Your task to perform on an android device: What is the news today? Image 0: 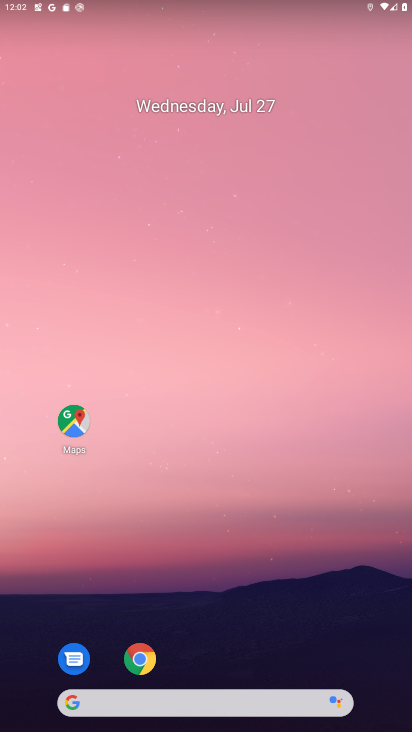
Step 0: drag from (262, 688) to (279, 28)
Your task to perform on an android device: What is the news today? Image 1: 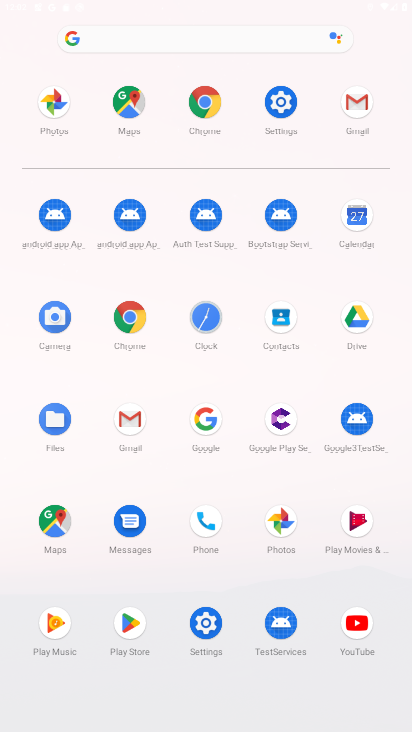
Step 1: click (133, 321)
Your task to perform on an android device: What is the news today? Image 2: 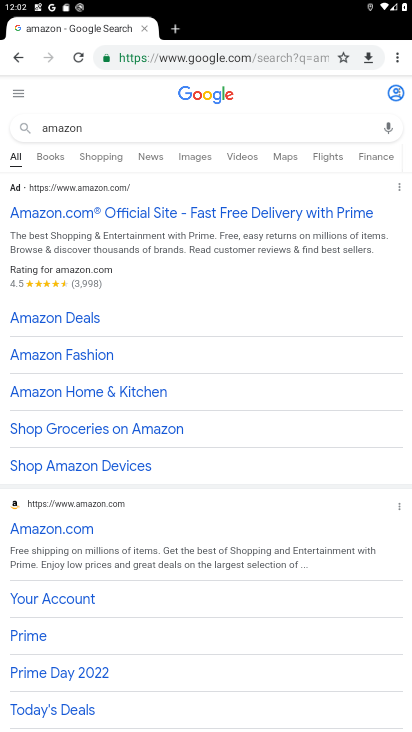
Step 2: click (278, 60)
Your task to perform on an android device: What is the news today? Image 3: 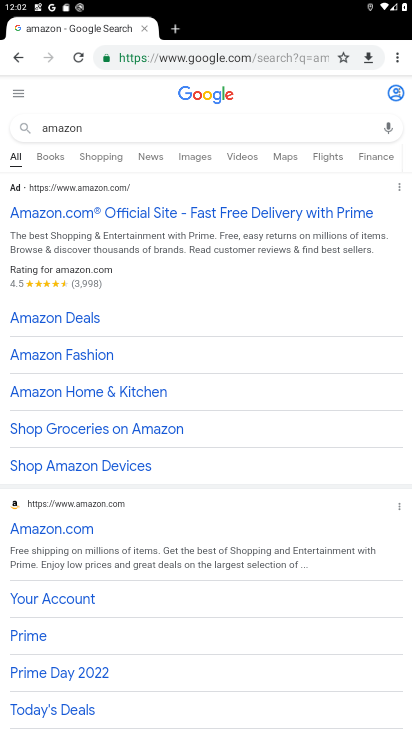
Step 3: click (278, 60)
Your task to perform on an android device: What is the news today? Image 4: 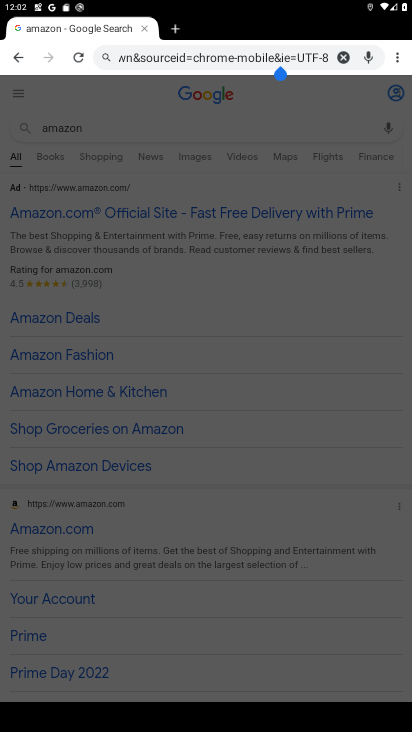
Step 4: click (343, 60)
Your task to perform on an android device: What is the news today? Image 5: 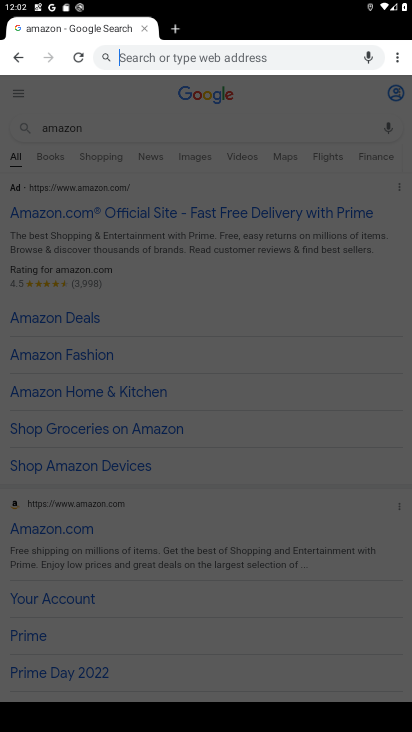
Step 5: type "news today"
Your task to perform on an android device: What is the news today? Image 6: 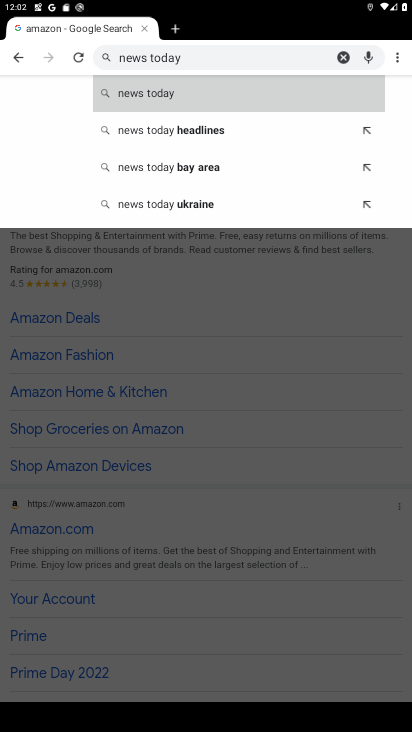
Step 6: click (191, 79)
Your task to perform on an android device: What is the news today? Image 7: 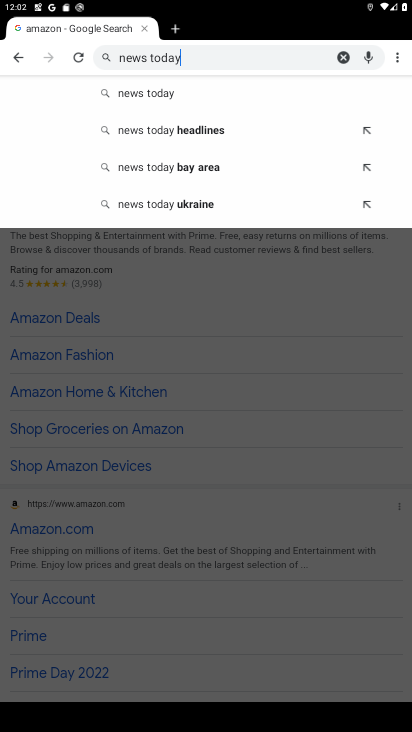
Step 7: click (166, 90)
Your task to perform on an android device: What is the news today? Image 8: 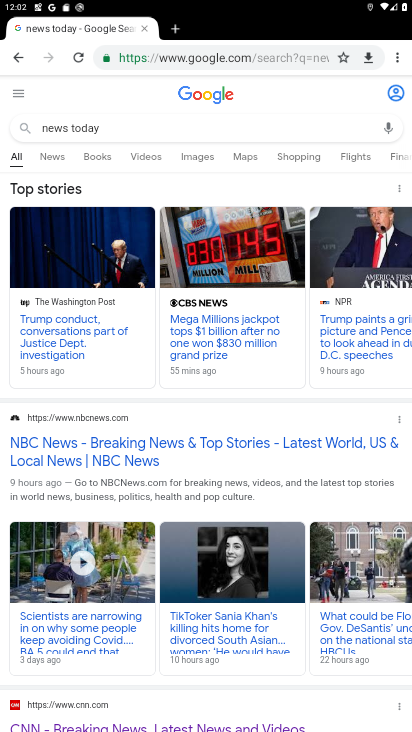
Step 8: task complete